Your task to perform on an android device: Clear the shopping cart on amazon.com. Search for "razer huntsman" on amazon.com, select the first entry, and add it to the cart. Image 0: 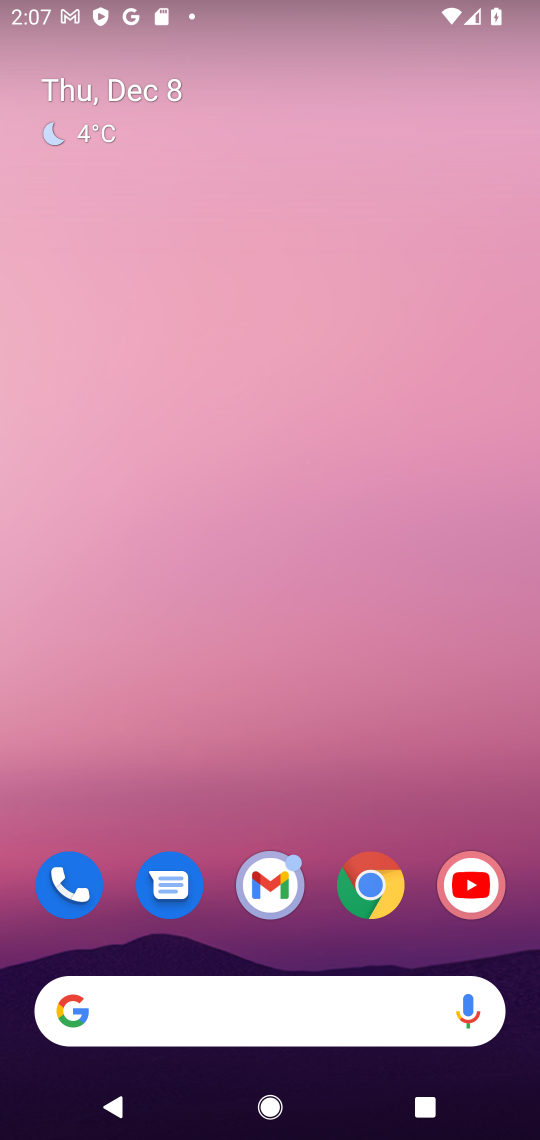
Step 0: click (383, 897)
Your task to perform on an android device: Clear the shopping cart on amazon.com. Search for "razer huntsman" on amazon.com, select the first entry, and add it to the cart. Image 1: 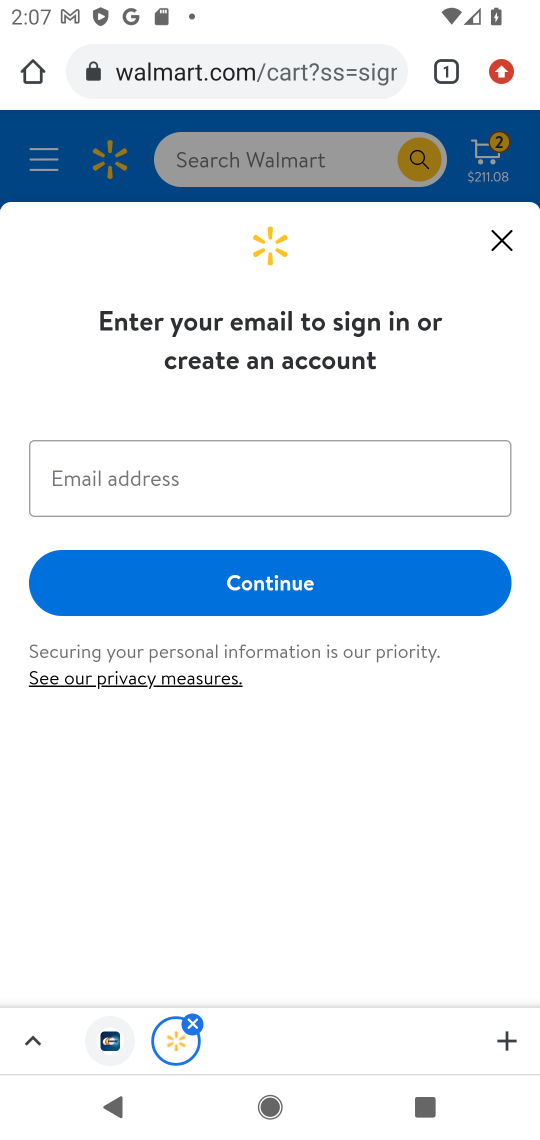
Step 1: click (290, 77)
Your task to perform on an android device: Clear the shopping cart on amazon.com. Search for "razer huntsman" on amazon.com, select the first entry, and add it to the cart. Image 2: 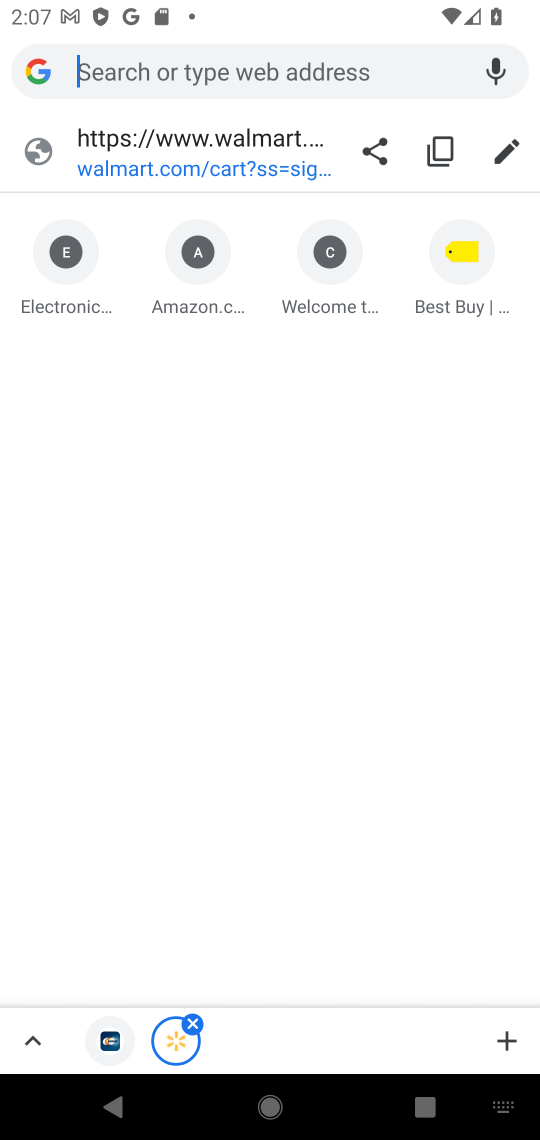
Step 2: click (195, 256)
Your task to perform on an android device: Clear the shopping cart on amazon.com. Search for "razer huntsman" on amazon.com, select the first entry, and add it to the cart. Image 3: 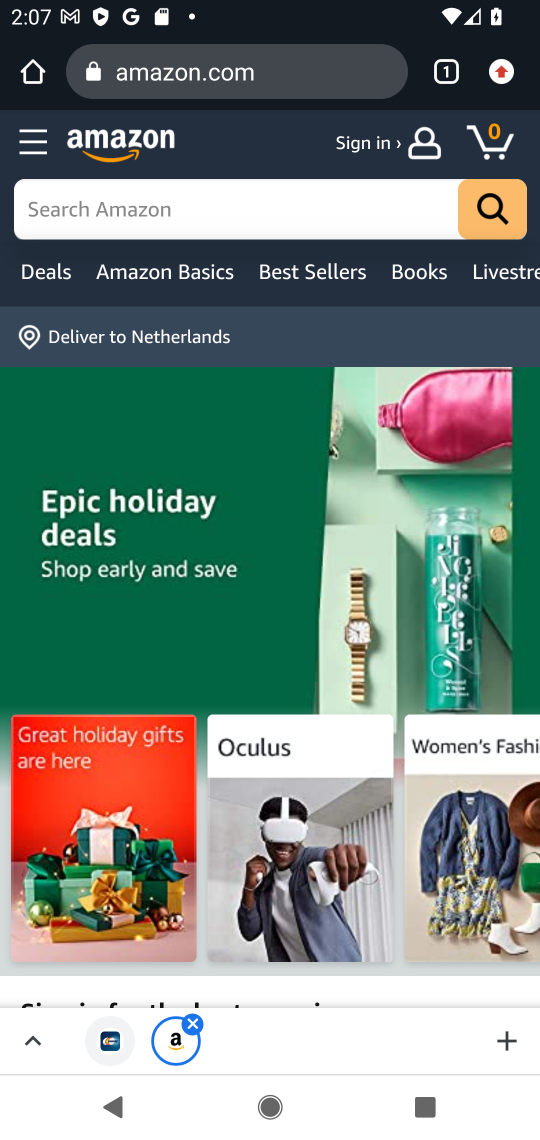
Step 3: click (315, 213)
Your task to perform on an android device: Clear the shopping cart on amazon.com. Search for "razer huntsman" on amazon.com, select the first entry, and add it to the cart. Image 4: 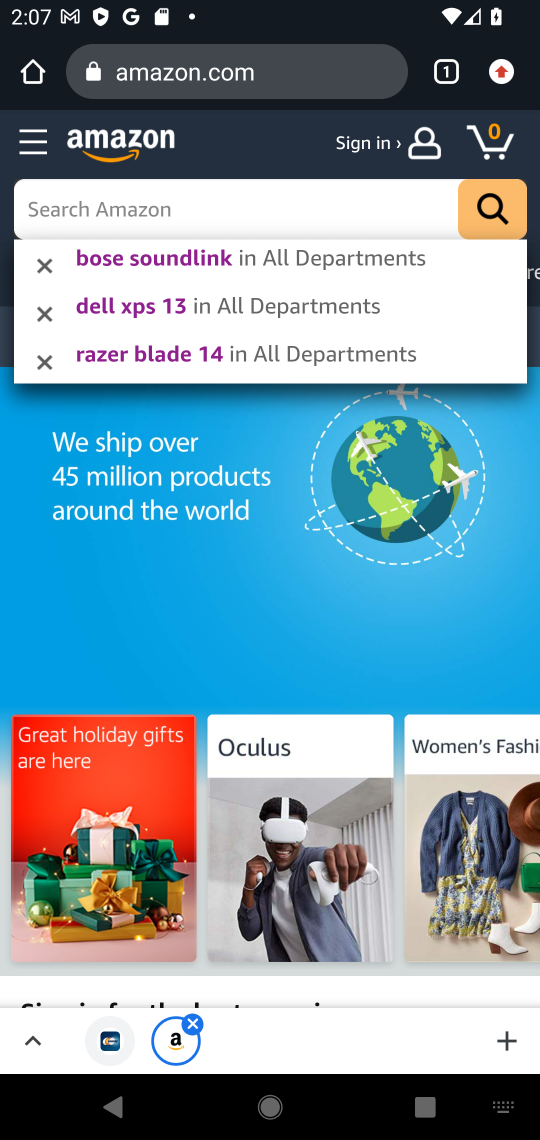
Step 4: type "razer huntsman"
Your task to perform on an android device: Clear the shopping cart on amazon.com. Search for "razer huntsman" on amazon.com, select the first entry, and add it to the cart. Image 5: 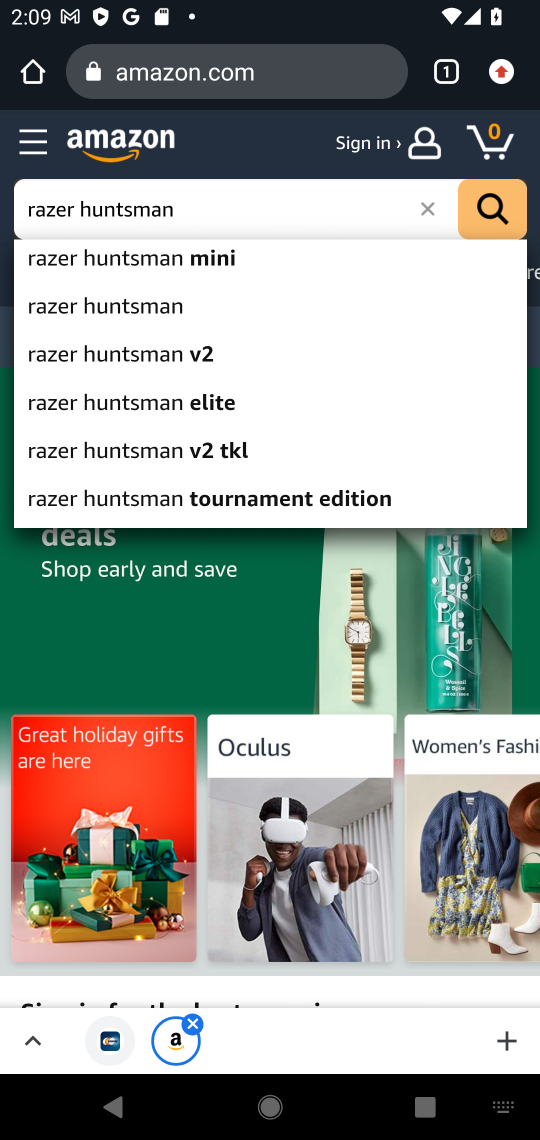
Step 5: click (175, 303)
Your task to perform on an android device: Clear the shopping cart on amazon.com. Search for "razer huntsman" on amazon.com, select the first entry, and add it to the cart. Image 6: 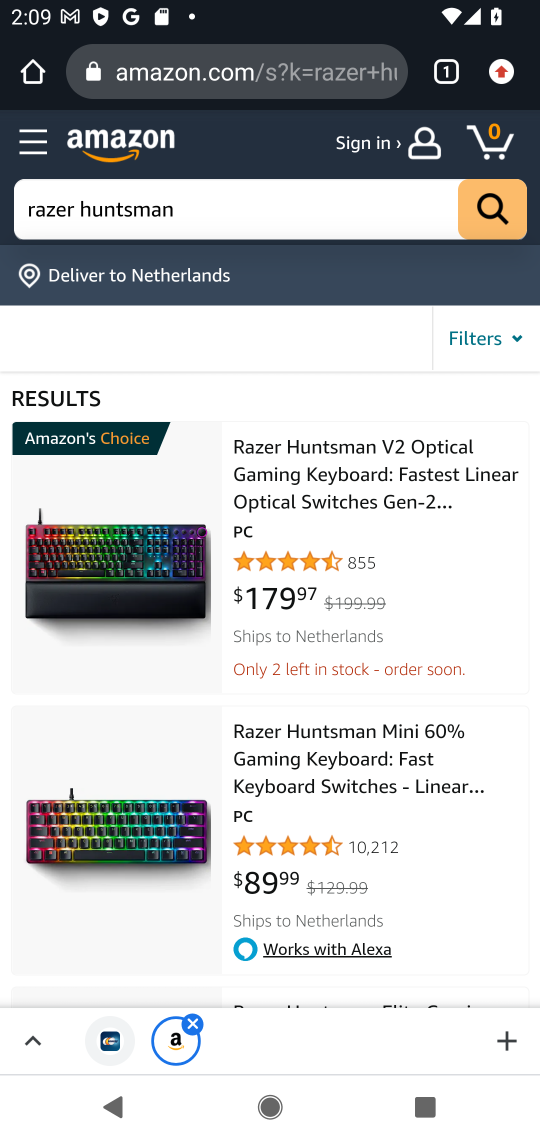
Step 6: click (164, 582)
Your task to perform on an android device: Clear the shopping cart on amazon.com. Search for "razer huntsman" on amazon.com, select the first entry, and add it to the cart. Image 7: 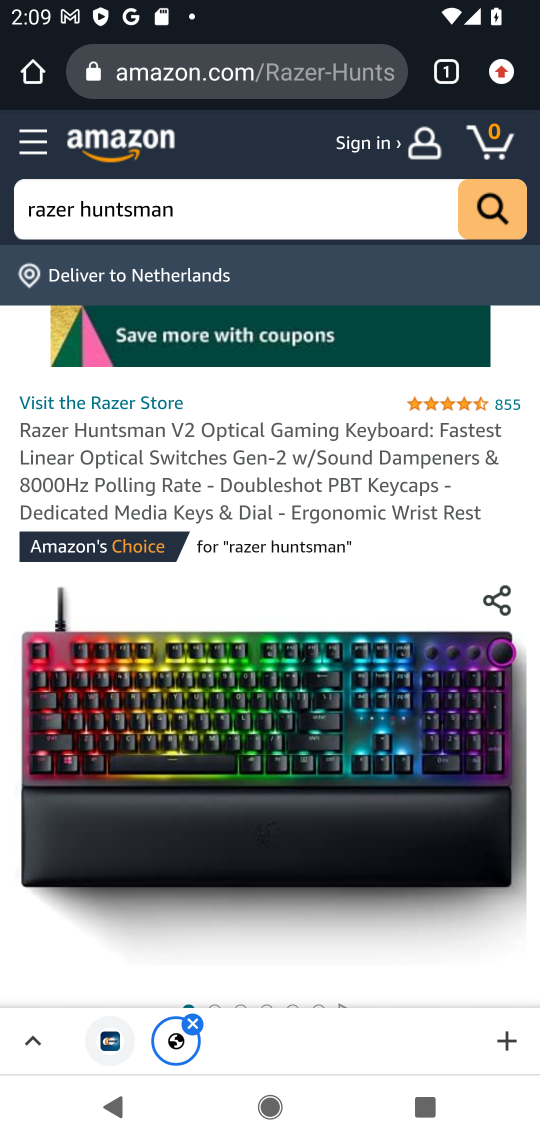
Step 7: drag from (354, 951) to (277, 154)
Your task to perform on an android device: Clear the shopping cart on amazon.com. Search for "razer huntsman" on amazon.com, select the first entry, and add it to the cart. Image 8: 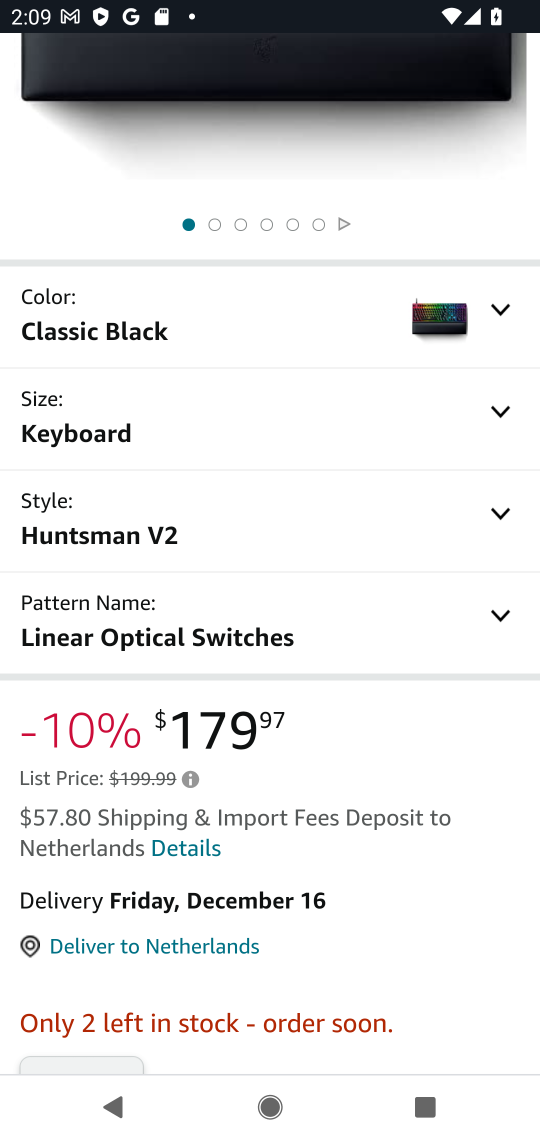
Step 8: drag from (355, 994) to (322, 270)
Your task to perform on an android device: Clear the shopping cart on amazon.com. Search for "razer huntsman" on amazon.com, select the first entry, and add it to the cart. Image 9: 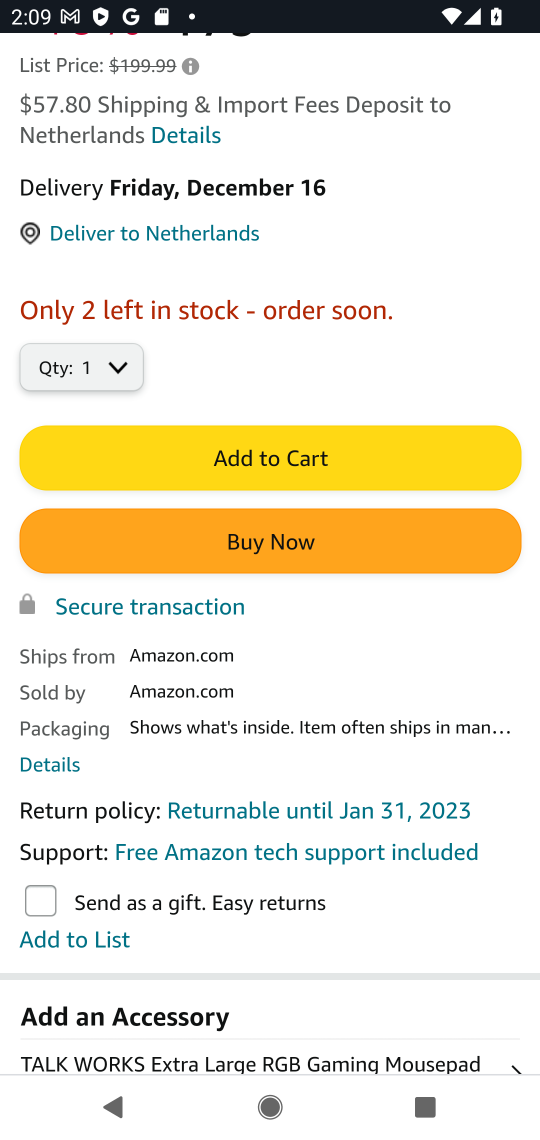
Step 9: click (282, 452)
Your task to perform on an android device: Clear the shopping cart on amazon.com. Search for "razer huntsman" on amazon.com, select the first entry, and add it to the cart. Image 10: 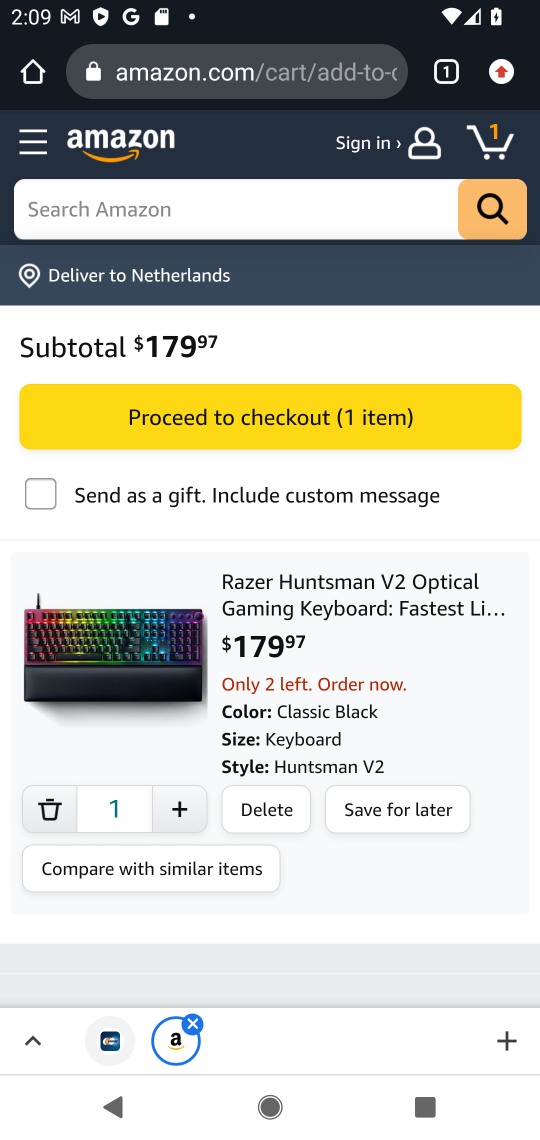
Step 10: task complete